Your task to perform on an android device: Add dell alienware to the cart on amazon.com, then select checkout. Image 0: 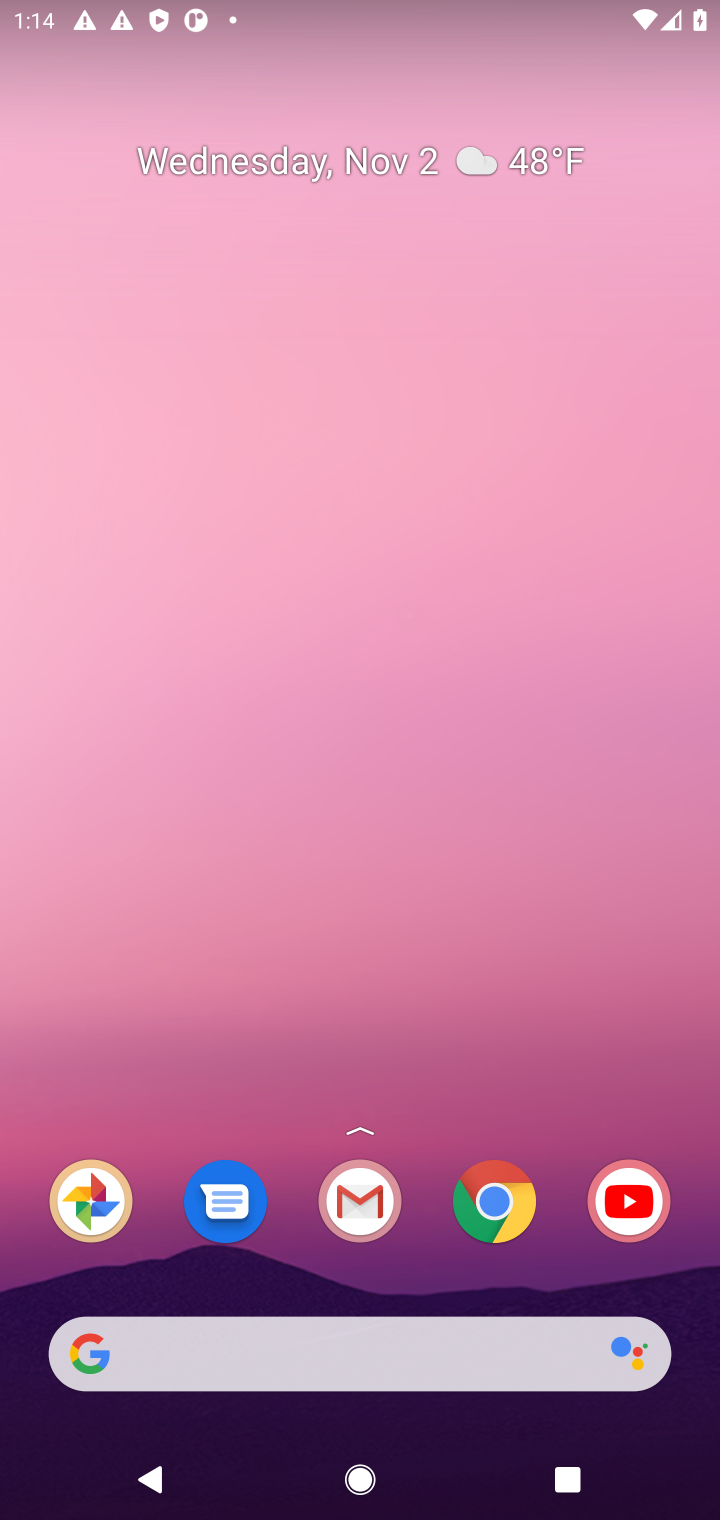
Step 0: click (503, 1211)
Your task to perform on an android device: Add dell alienware to the cart on amazon.com, then select checkout. Image 1: 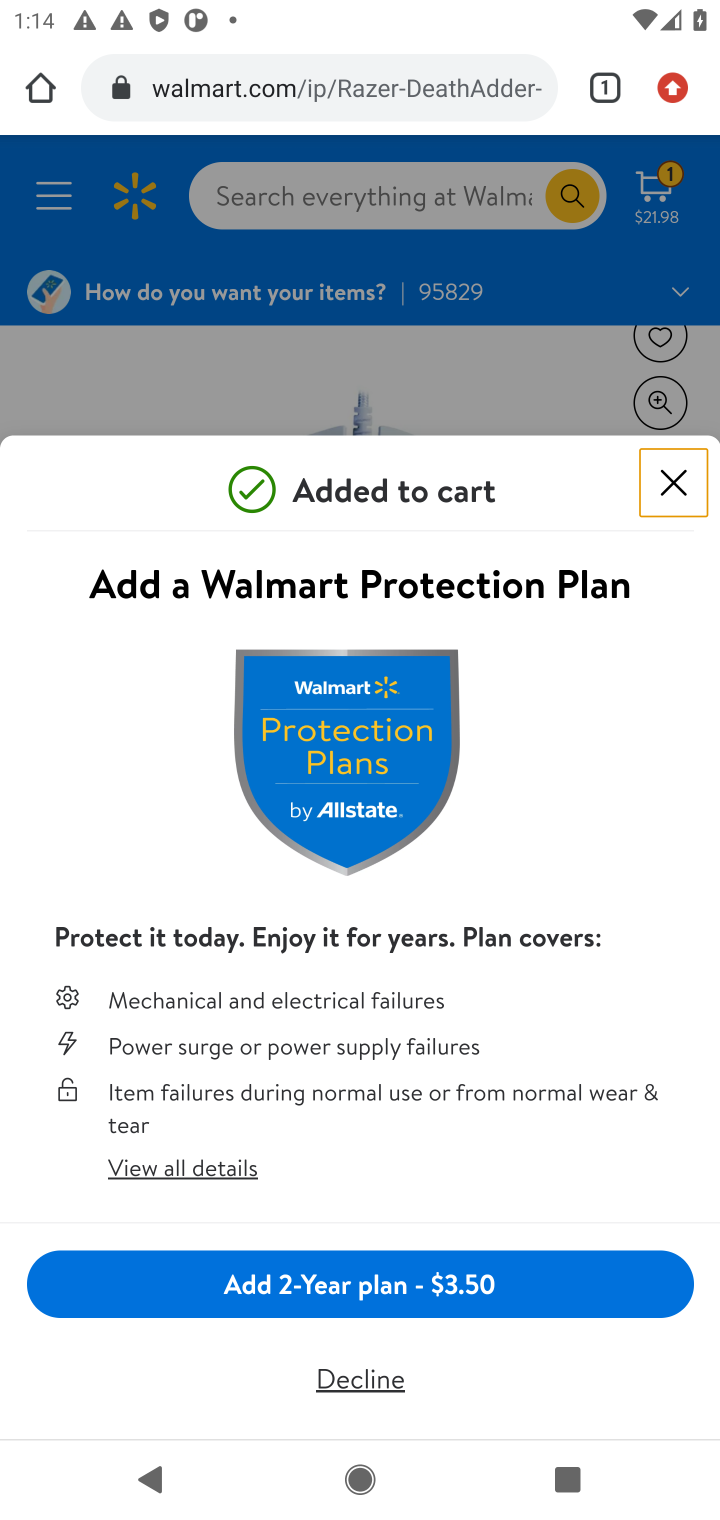
Step 1: click (363, 83)
Your task to perform on an android device: Add dell alienware to the cart on amazon.com, then select checkout. Image 2: 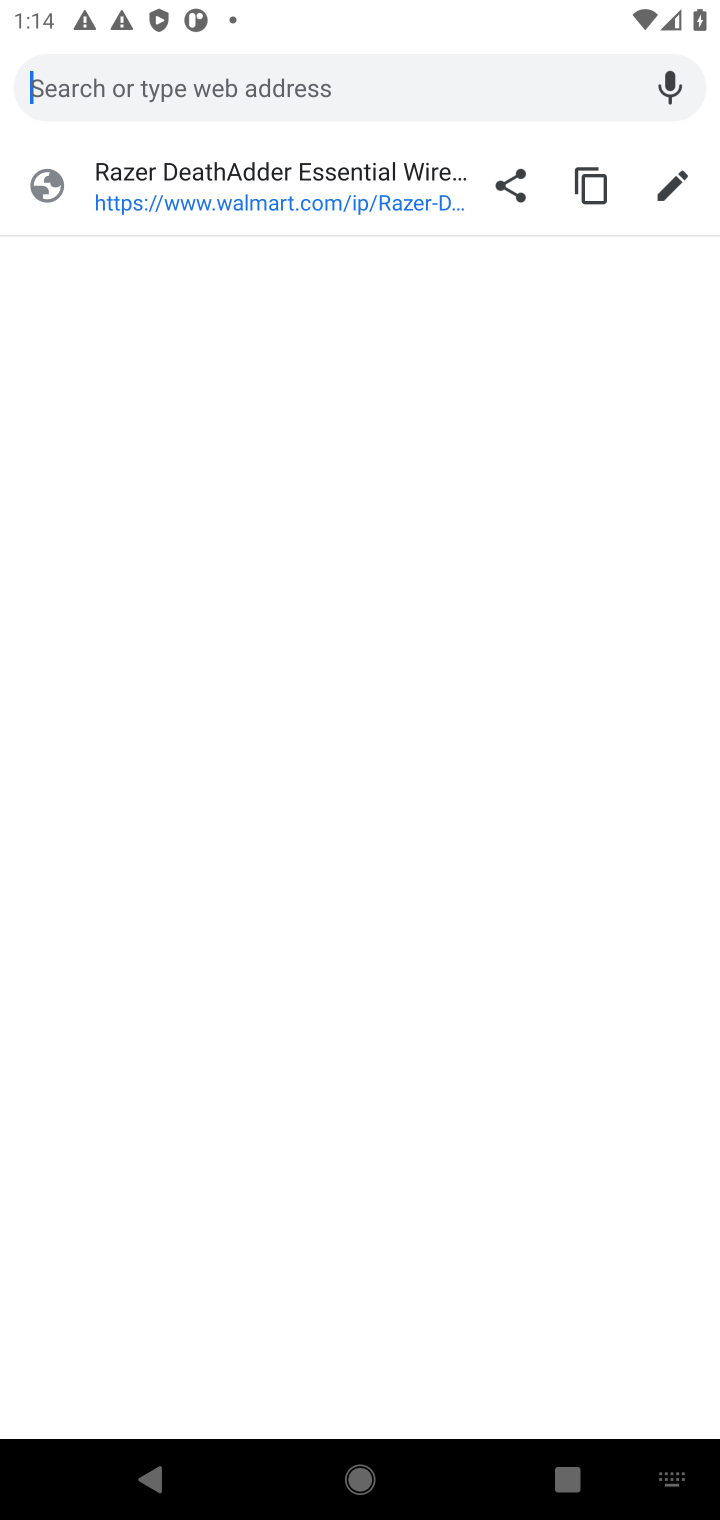
Step 2: press enter
Your task to perform on an android device: Add dell alienware to the cart on amazon.com, then select checkout. Image 3: 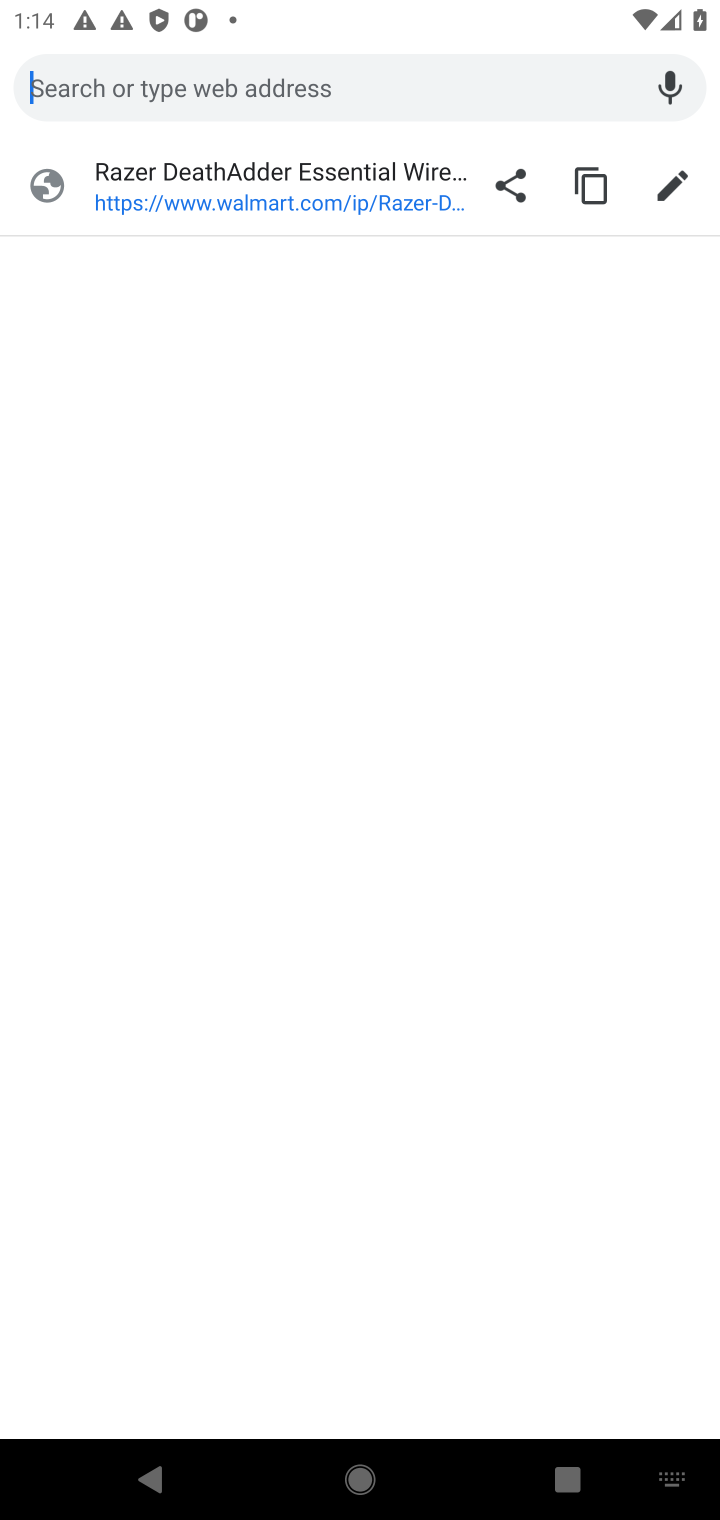
Step 3: type "amazon.com"
Your task to perform on an android device: Add dell alienware to the cart on amazon.com, then select checkout. Image 4: 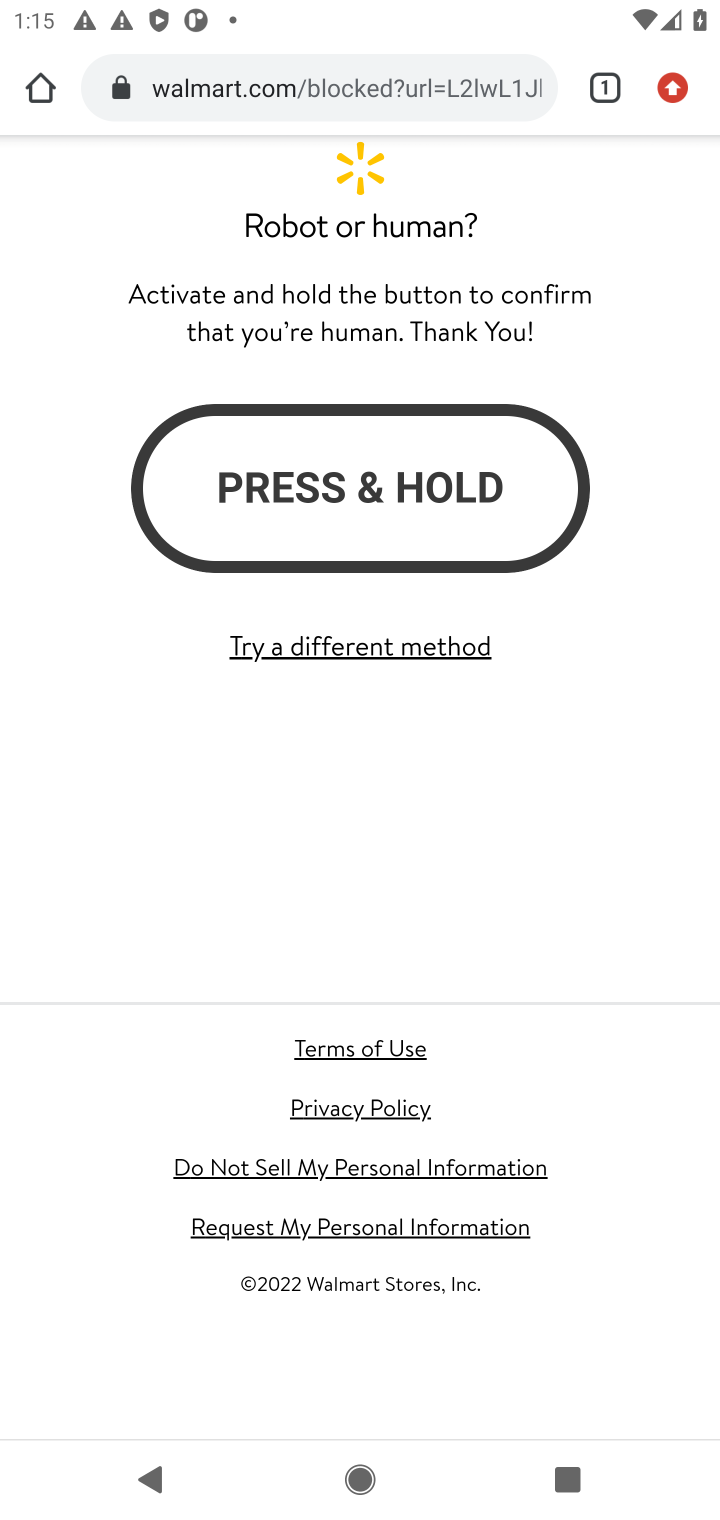
Step 4: click (231, 80)
Your task to perform on an android device: Add dell alienware to the cart on amazon.com, then select checkout. Image 5: 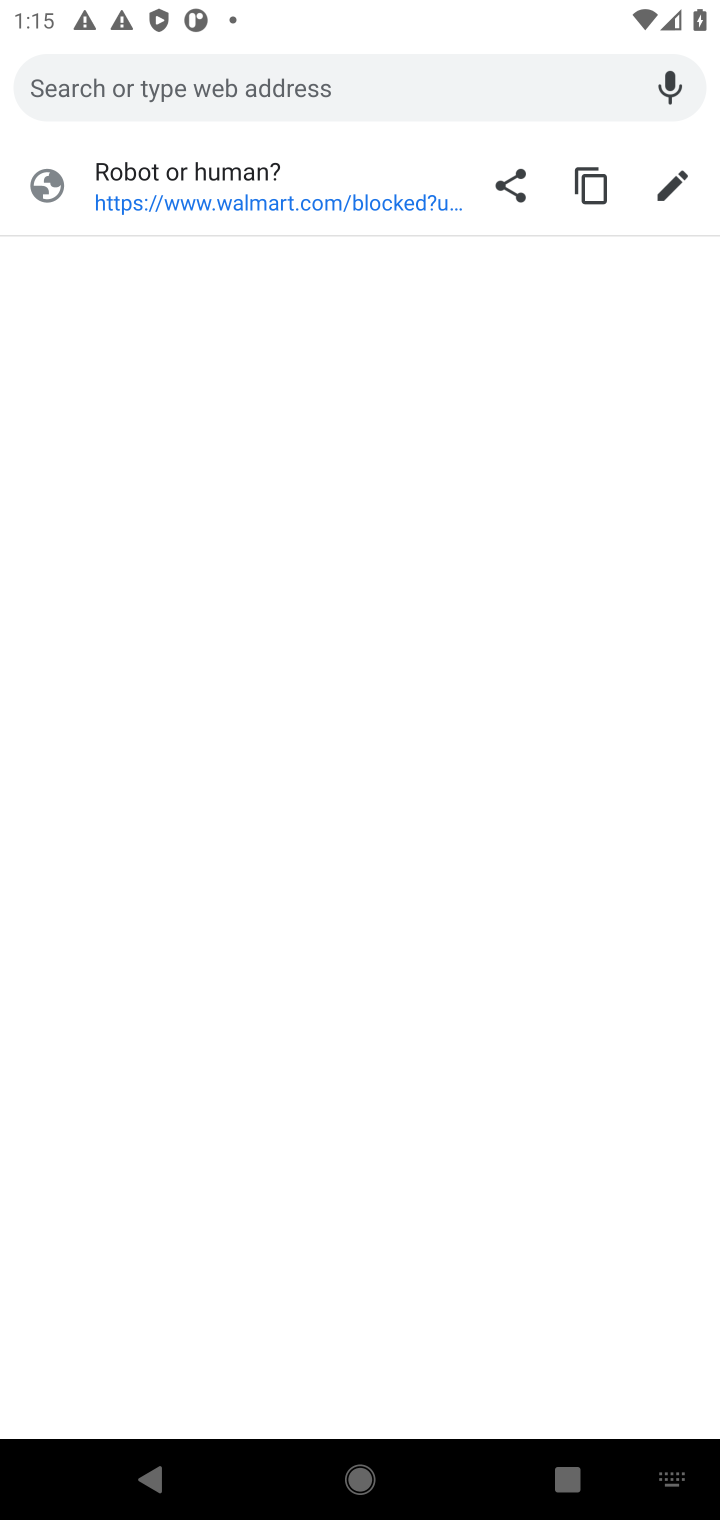
Step 5: press enter
Your task to perform on an android device: Add dell alienware to the cart on amazon.com, then select checkout. Image 6: 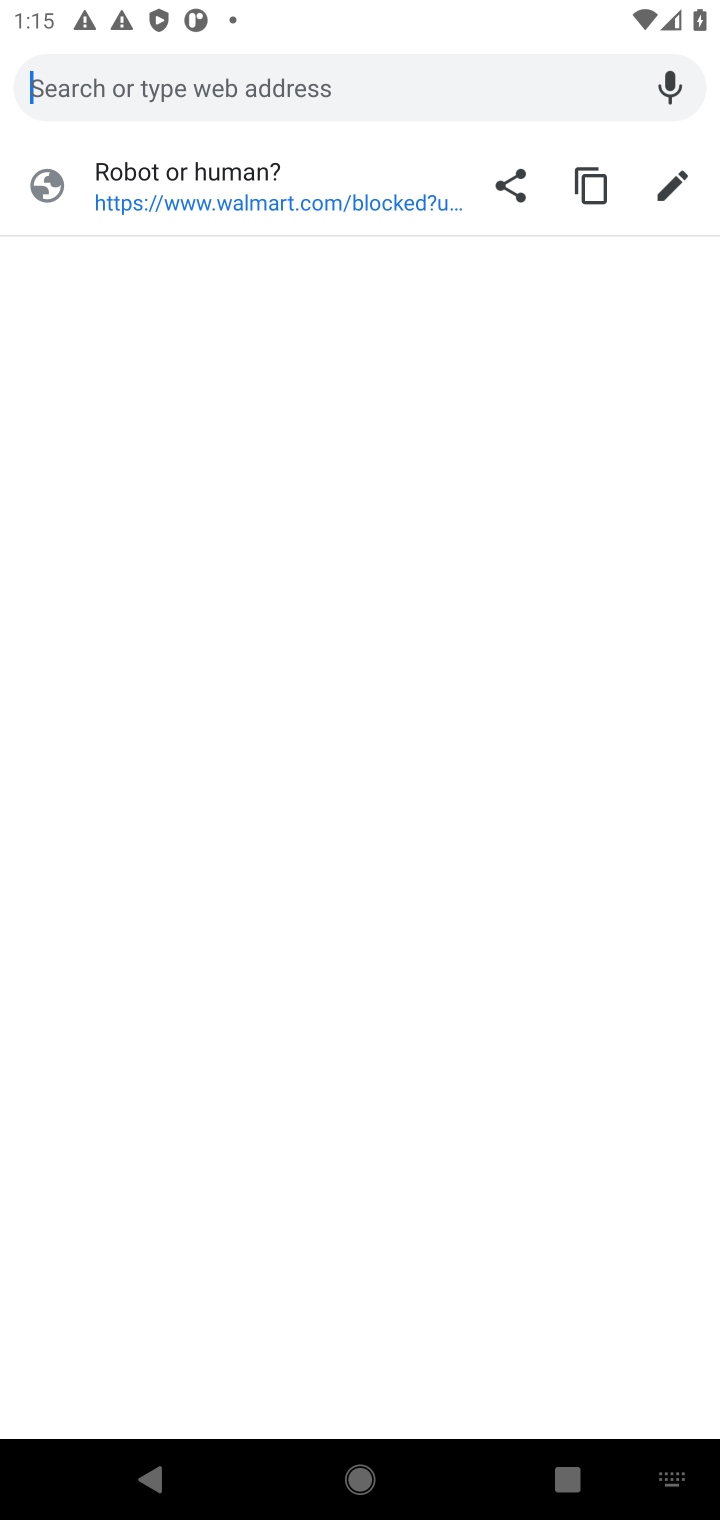
Step 6: type "amazon.com"
Your task to perform on an android device: Add dell alienware to the cart on amazon.com, then select checkout. Image 7: 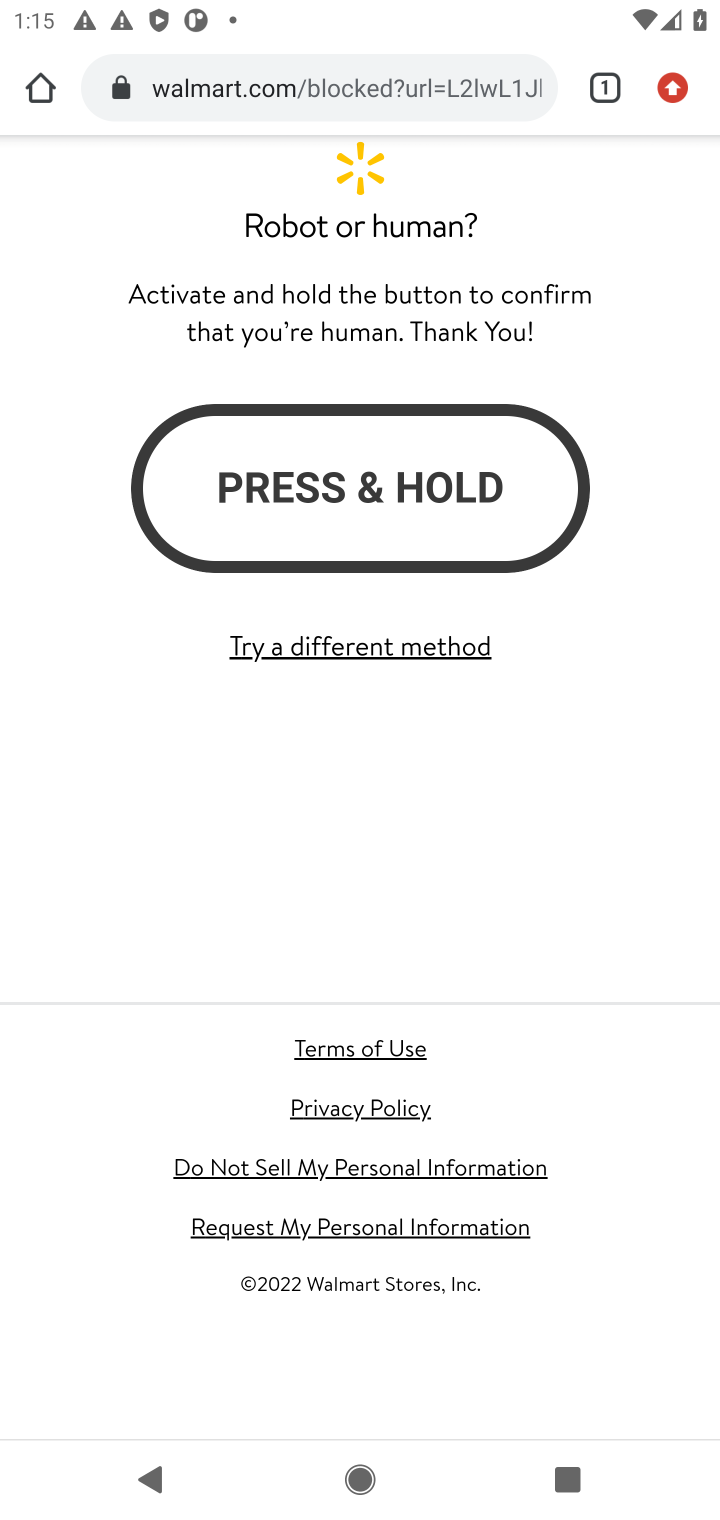
Step 7: click (338, 87)
Your task to perform on an android device: Add dell alienware to the cart on amazon.com, then select checkout. Image 8: 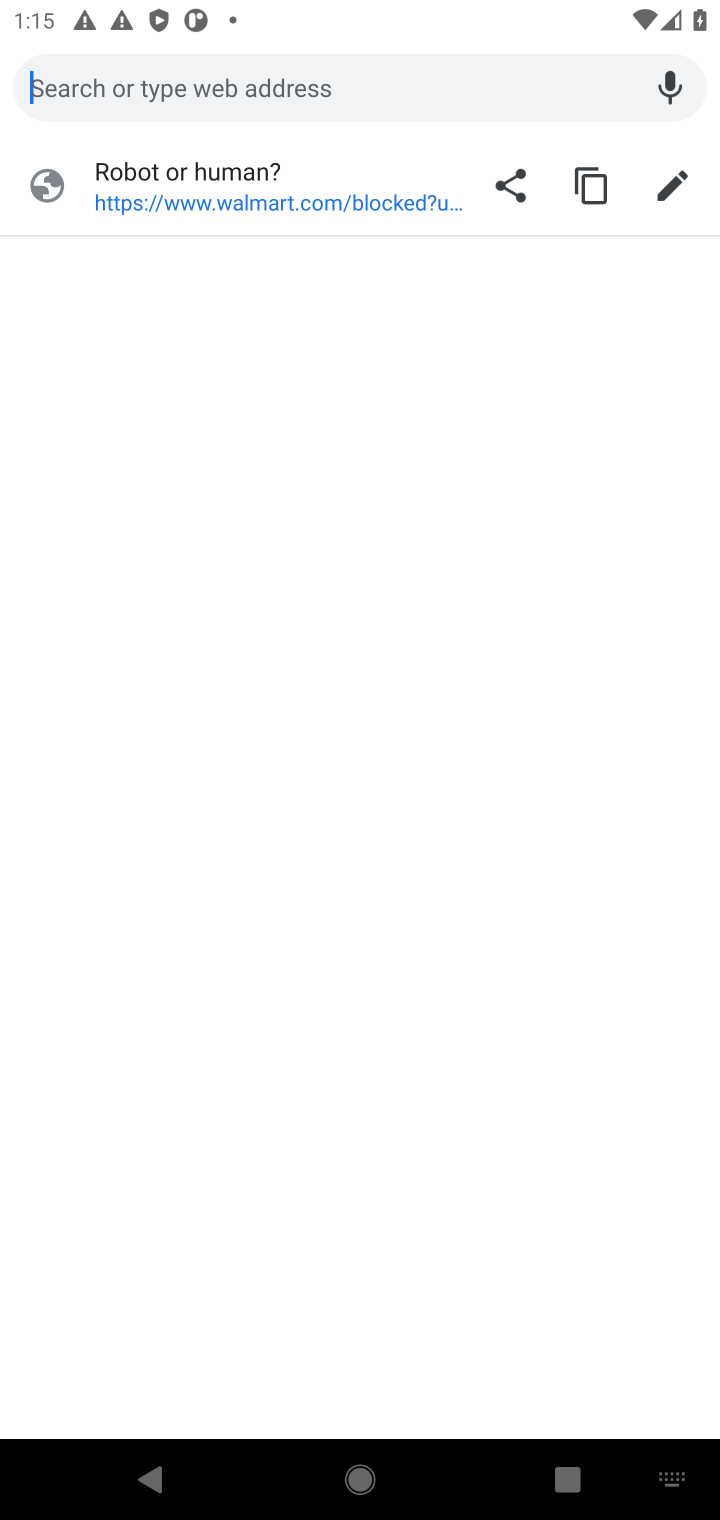
Step 8: press enter
Your task to perform on an android device: Add dell alienware to the cart on amazon.com, then select checkout. Image 9: 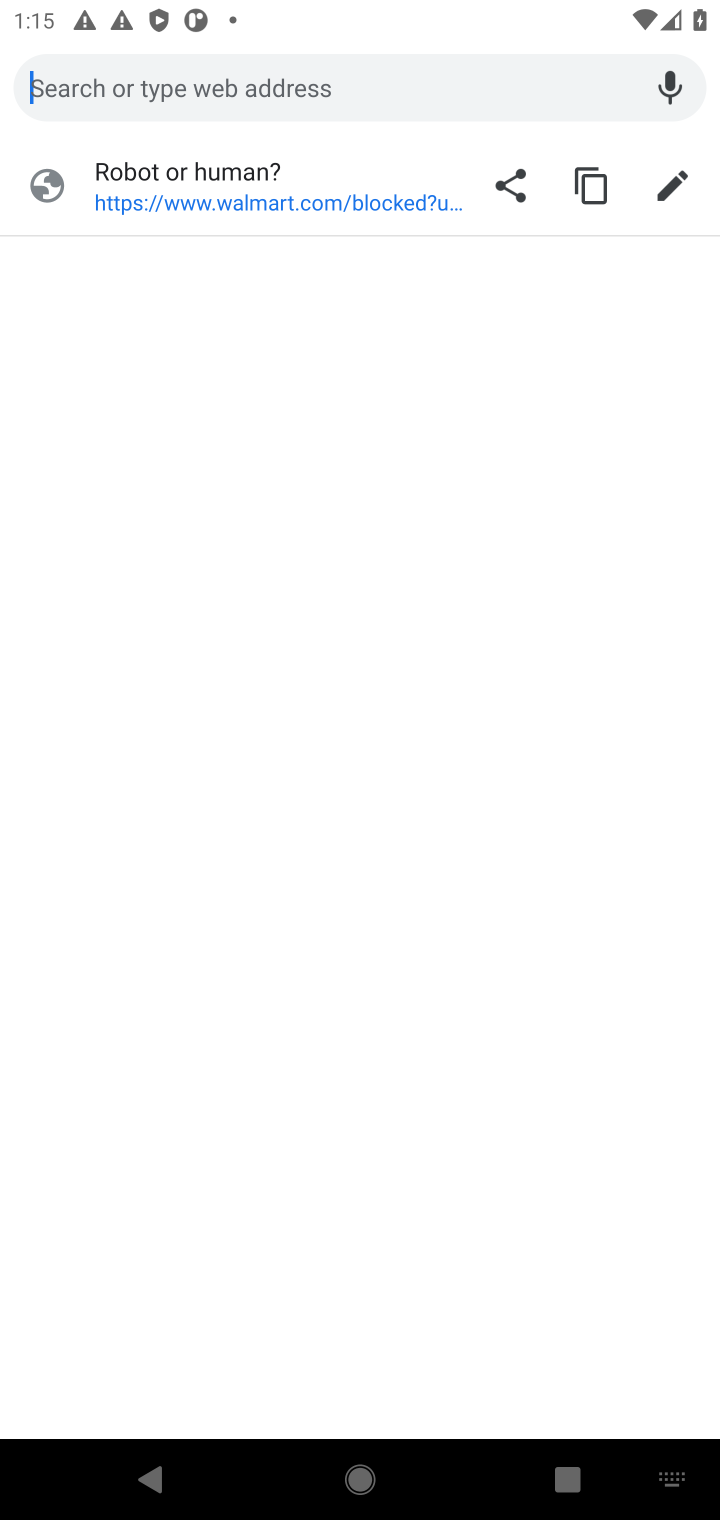
Step 9: type "amazon.com"
Your task to perform on an android device: Add dell alienware to the cart on amazon.com, then select checkout. Image 10: 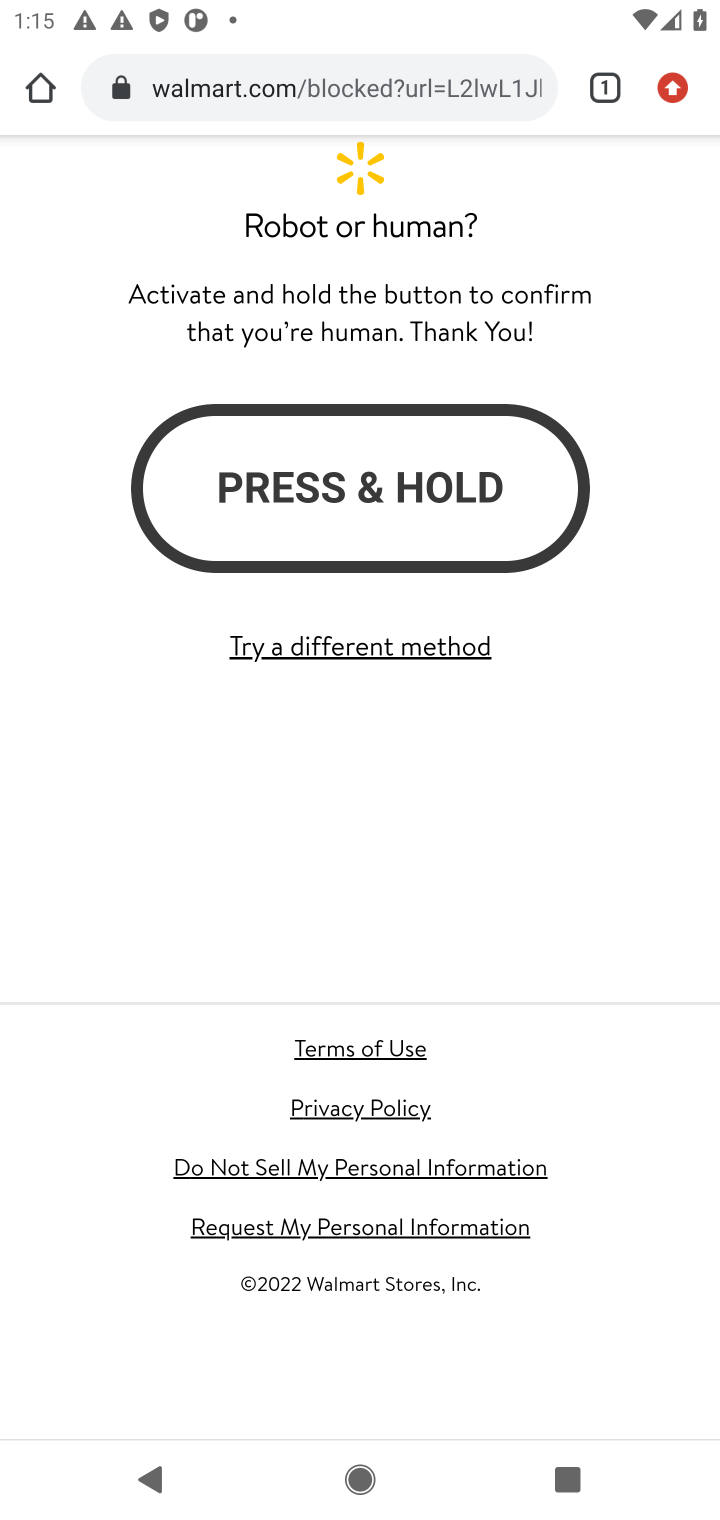
Step 10: click (30, 80)
Your task to perform on an android device: Add dell alienware to the cart on amazon.com, then select checkout. Image 11: 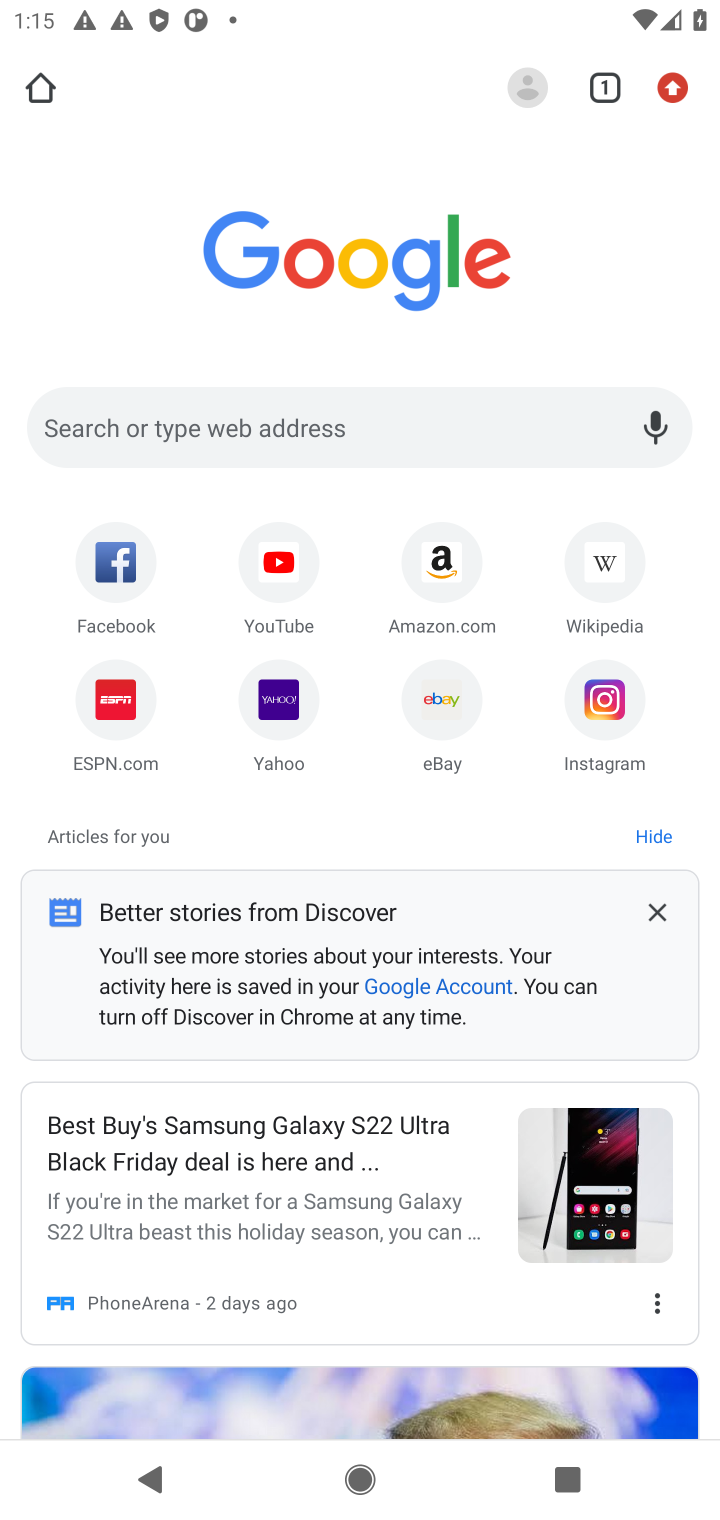
Step 11: click (289, 440)
Your task to perform on an android device: Add dell alienware to the cart on amazon.com, then select checkout. Image 12: 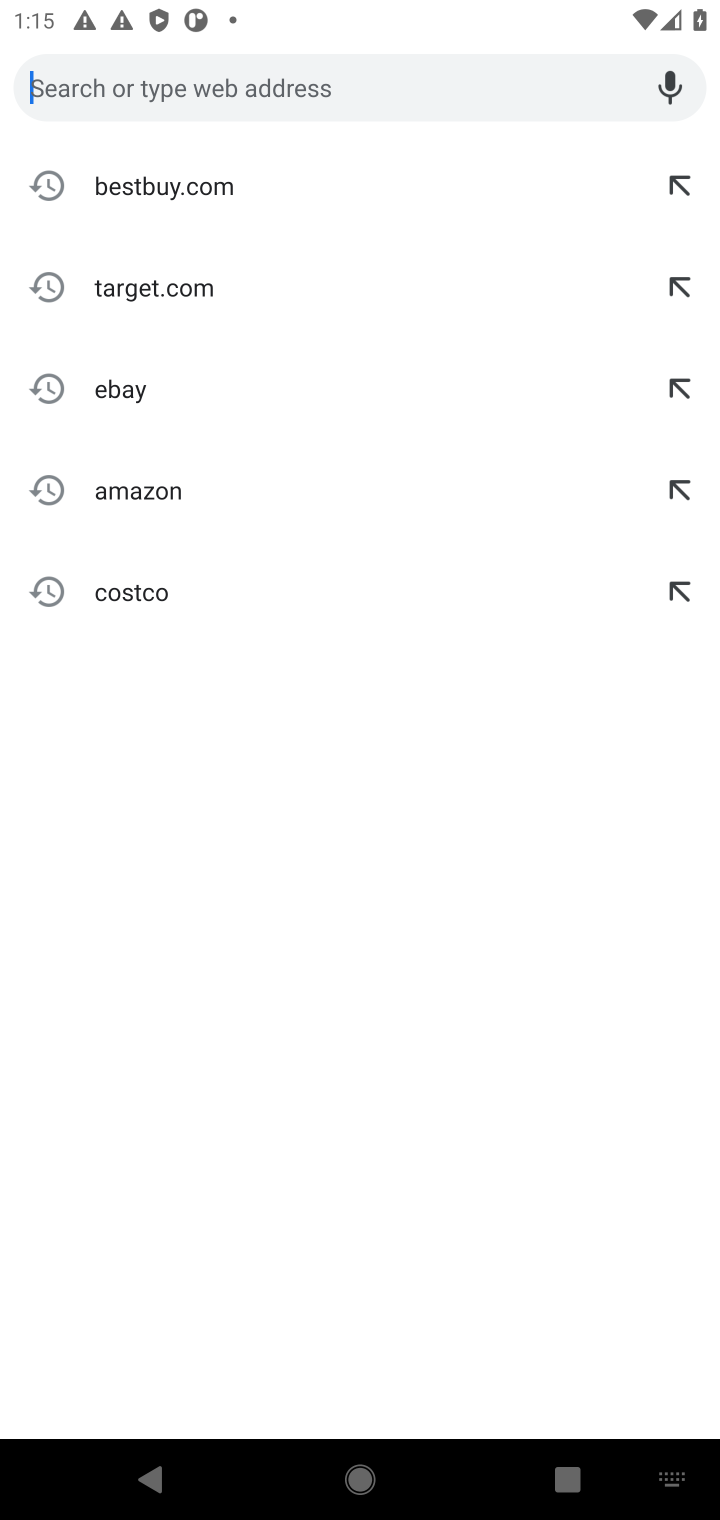
Step 12: press enter
Your task to perform on an android device: Add dell alienware to the cart on amazon.com, then select checkout. Image 13: 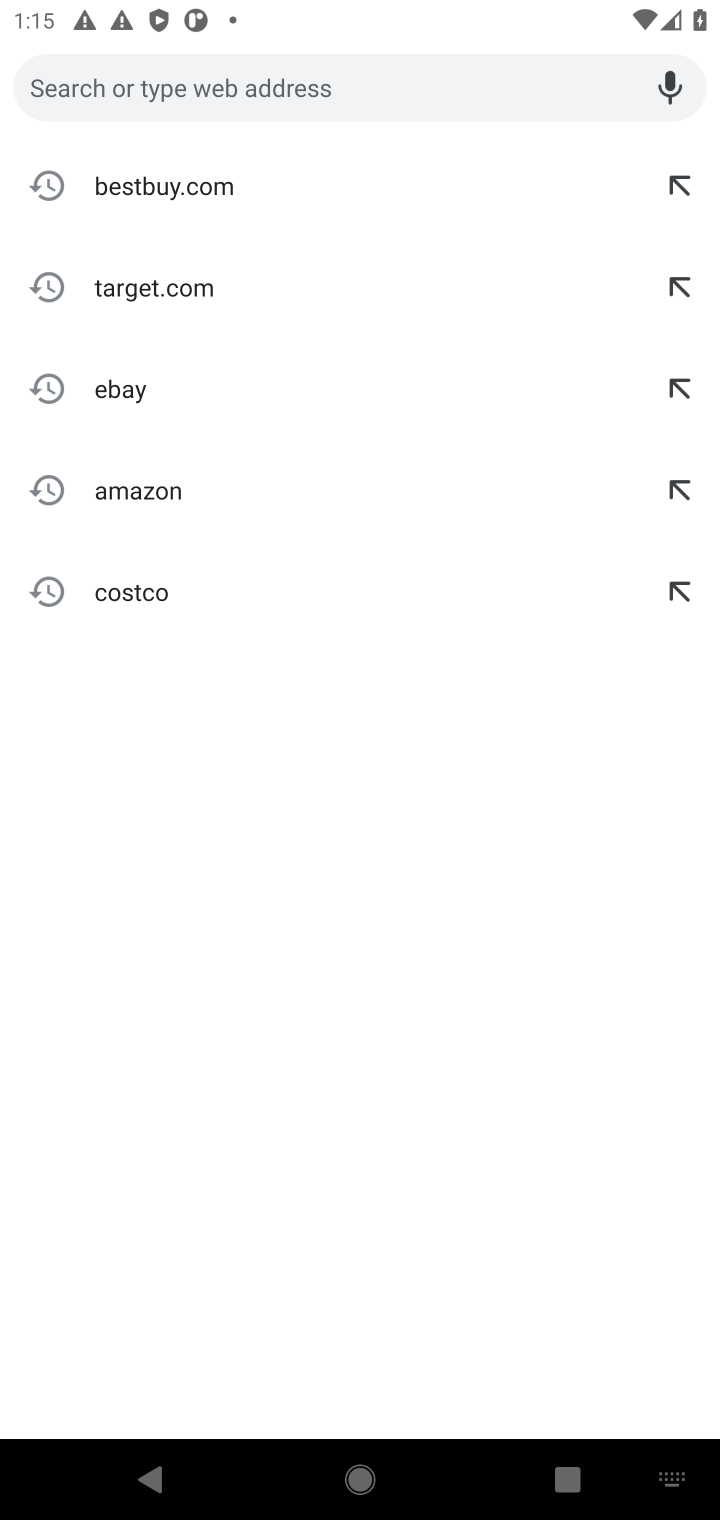
Step 13: type "amazon.com"
Your task to perform on an android device: Add dell alienware to the cart on amazon.com, then select checkout. Image 14: 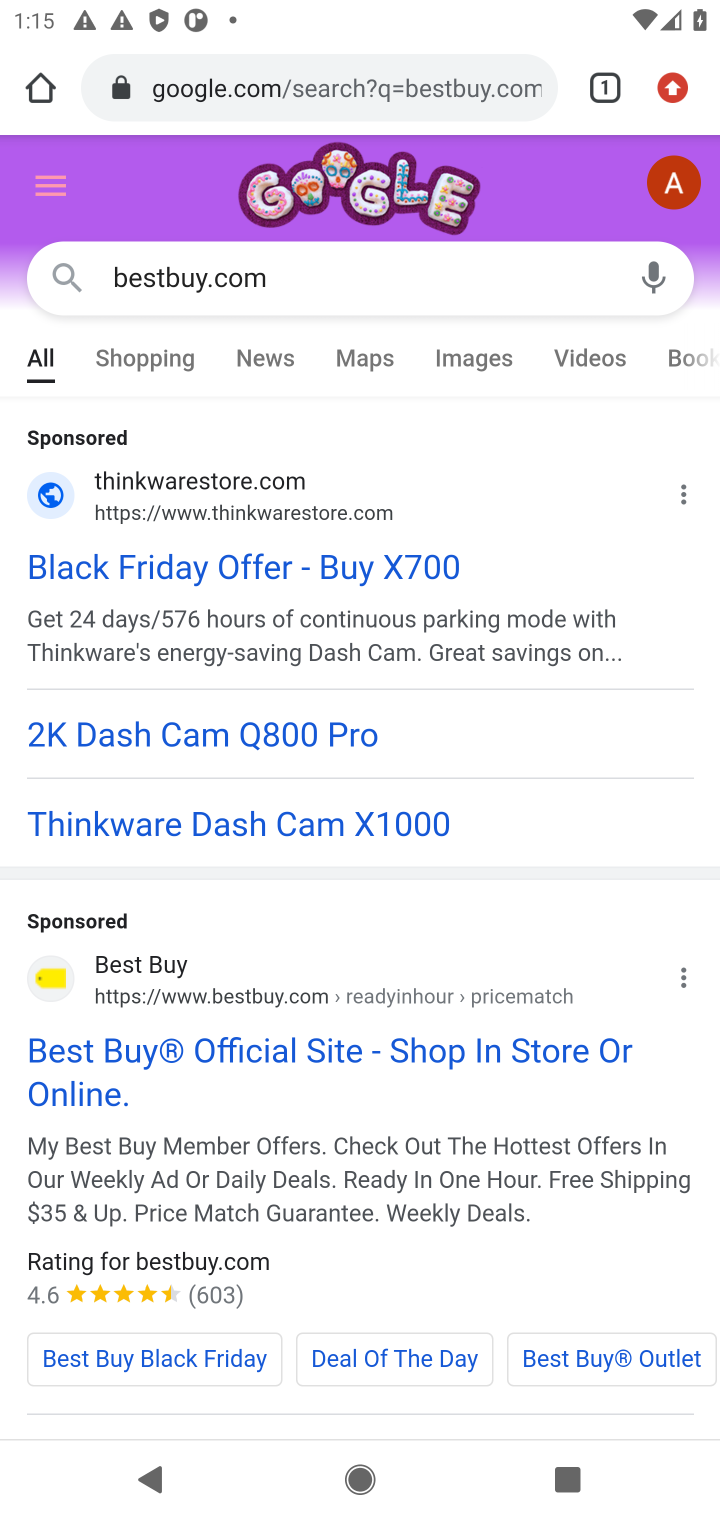
Step 14: click (249, 90)
Your task to perform on an android device: Add dell alienware to the cart on amazon.com, then select checkout. Image 15: 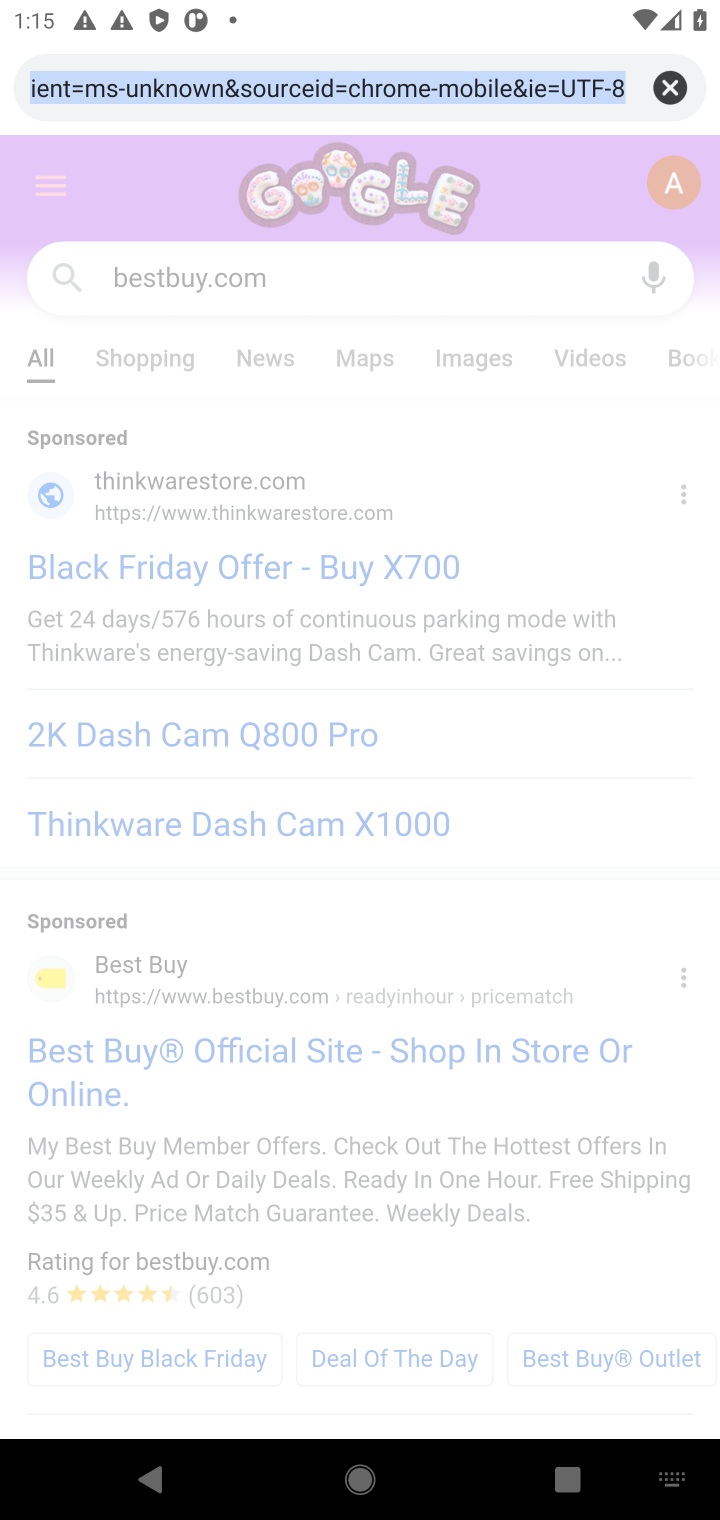
Step 15: click (664, 88)
Your task to perform on an android device: Add dell alienware to the cart on amazon.com, then select checkout. Image 16: 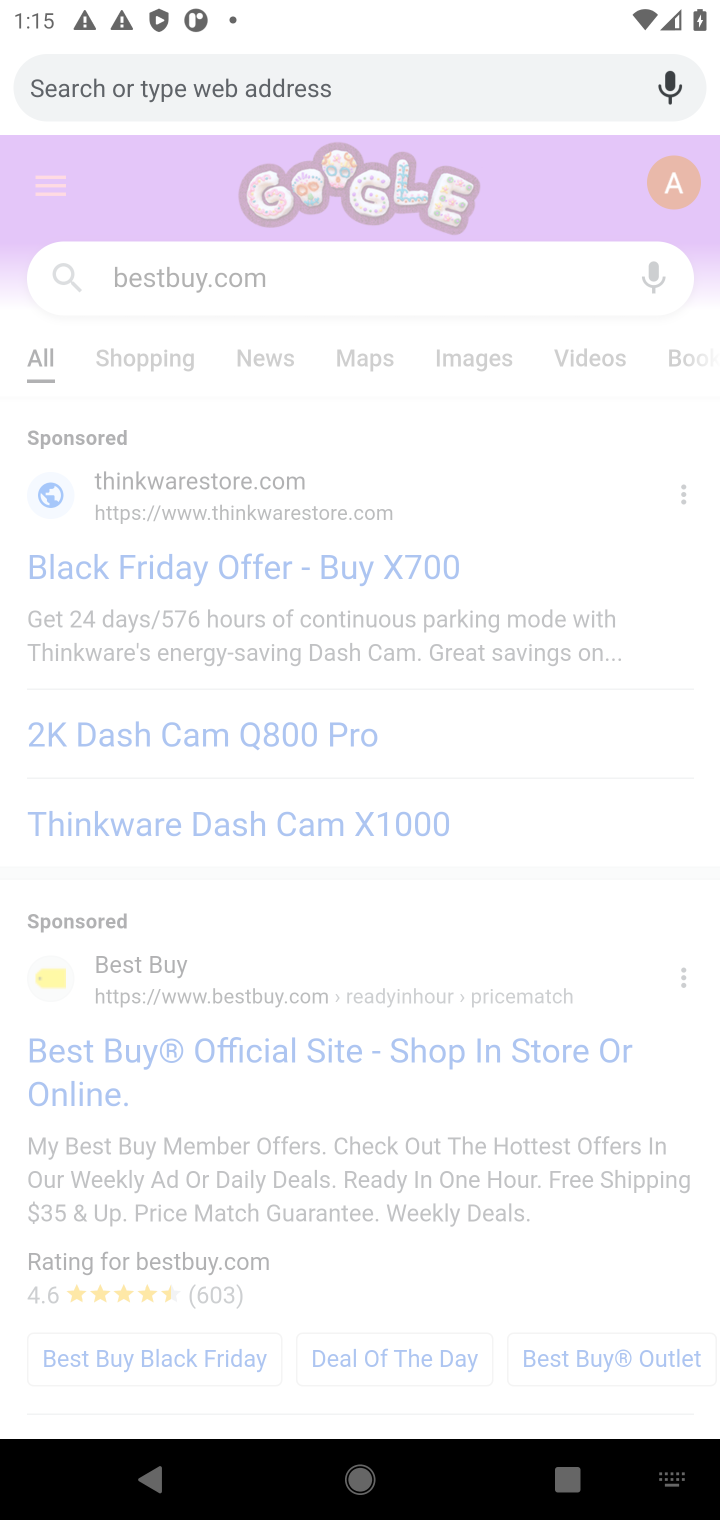
Step 16: press enter
Your task to perform on an android device: Add dell alienware to the cart on amazon.com, then select checkout. Image 17: 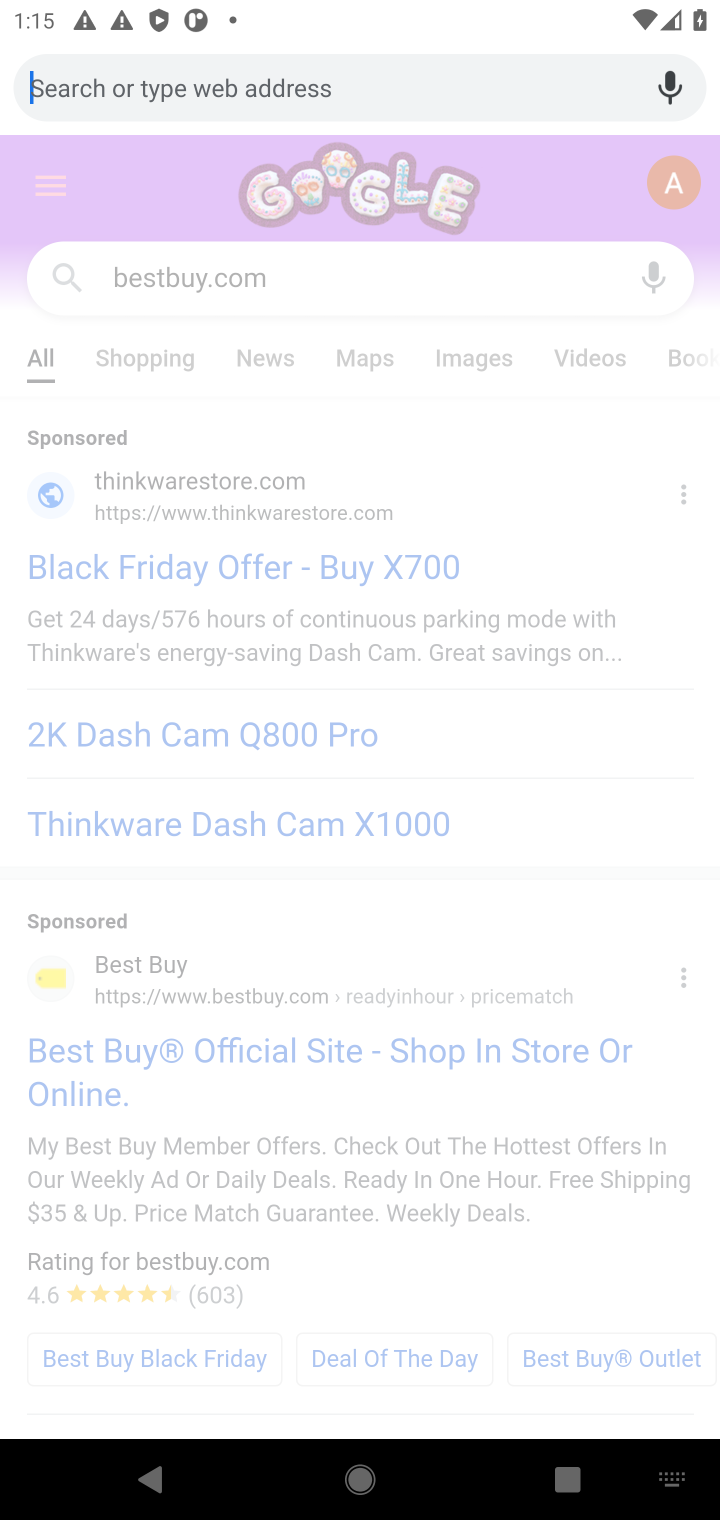
Step 17: type "amazon.com"
Your task to perform on an android device: Add dell alienware to the cart on amazon.com, then select checkout. Image 18: 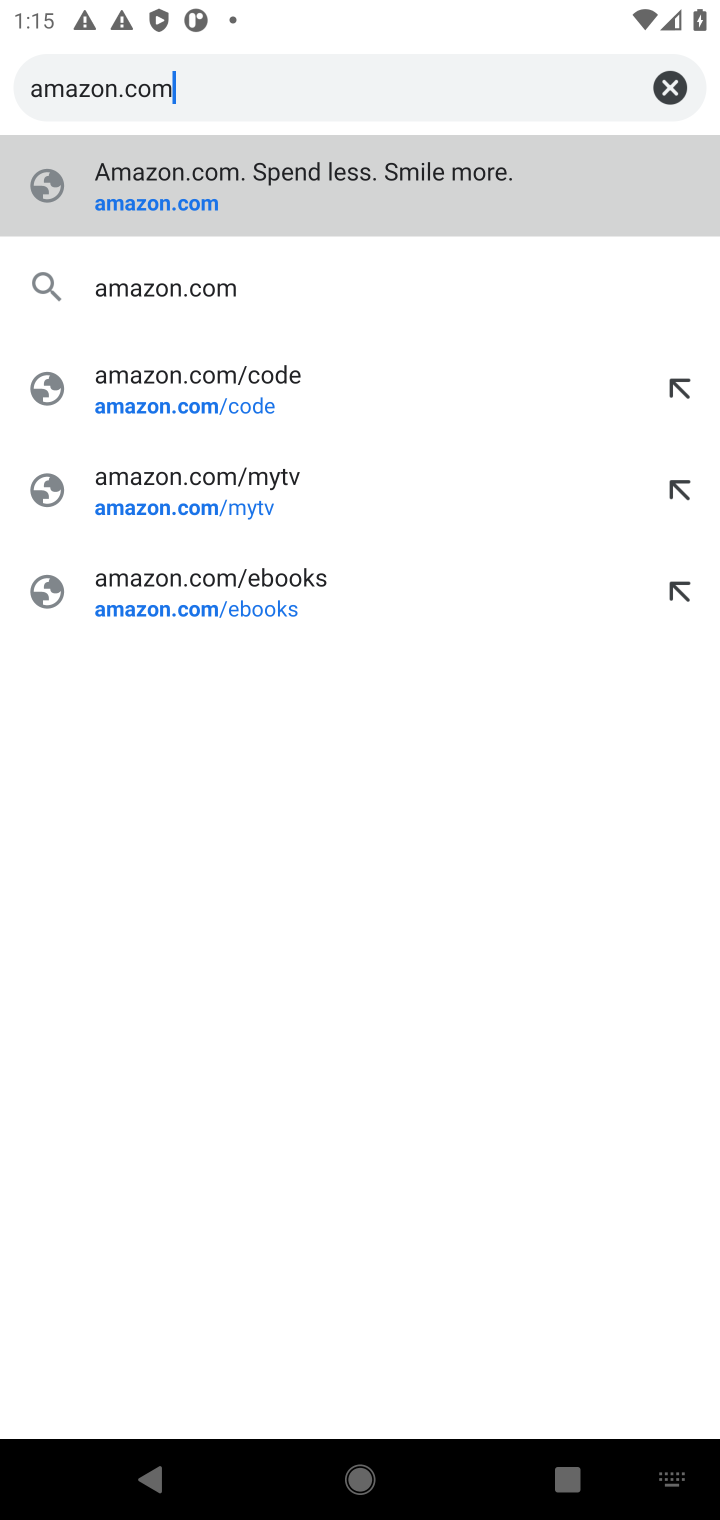
Step 18: click (270, 294)
Your task to perform on an android device: Add dell alienware to the cart on amazon.com, then select checkout. Image 19: 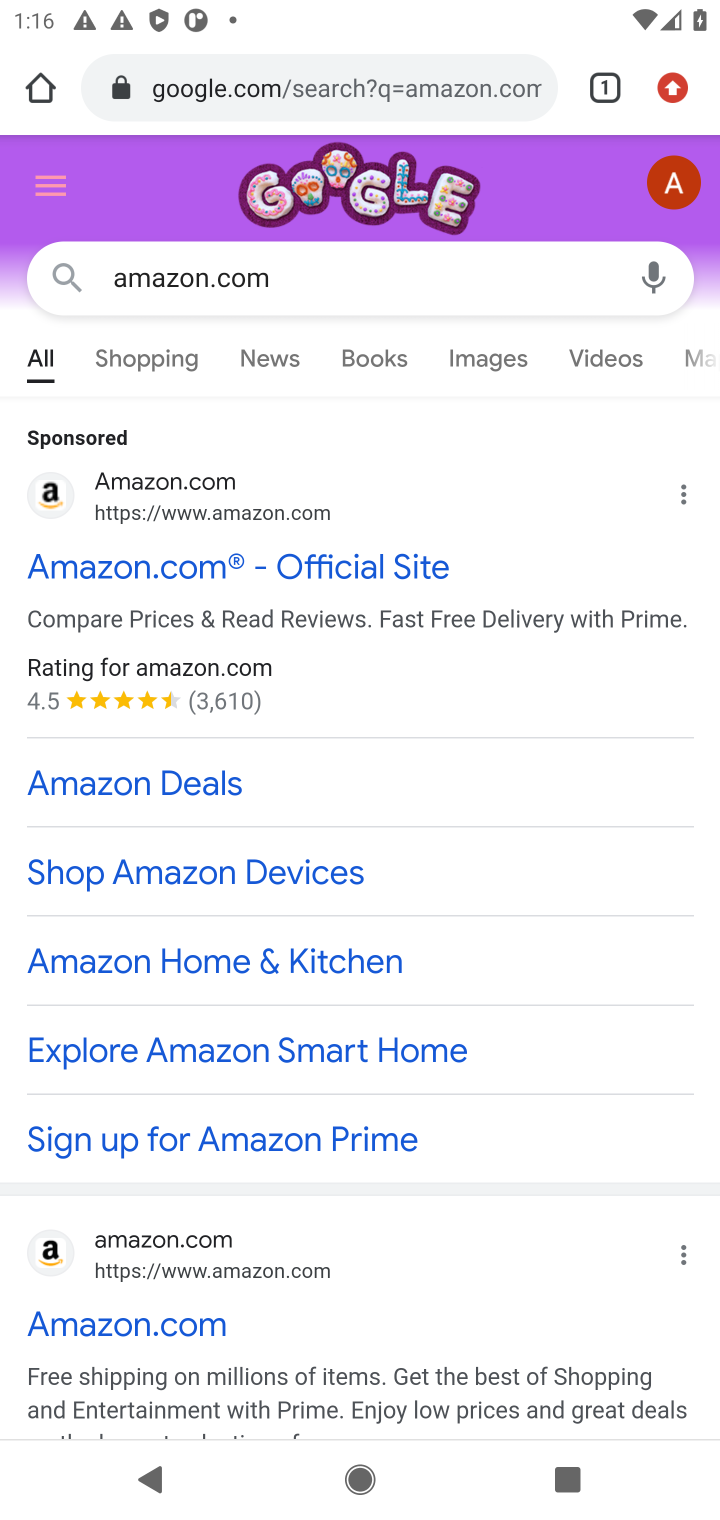
Step 19: click (211, 481)
Your task to perform on an android device: Add dell alienware to the cart on amazon.com, then select checkout. Image 20: 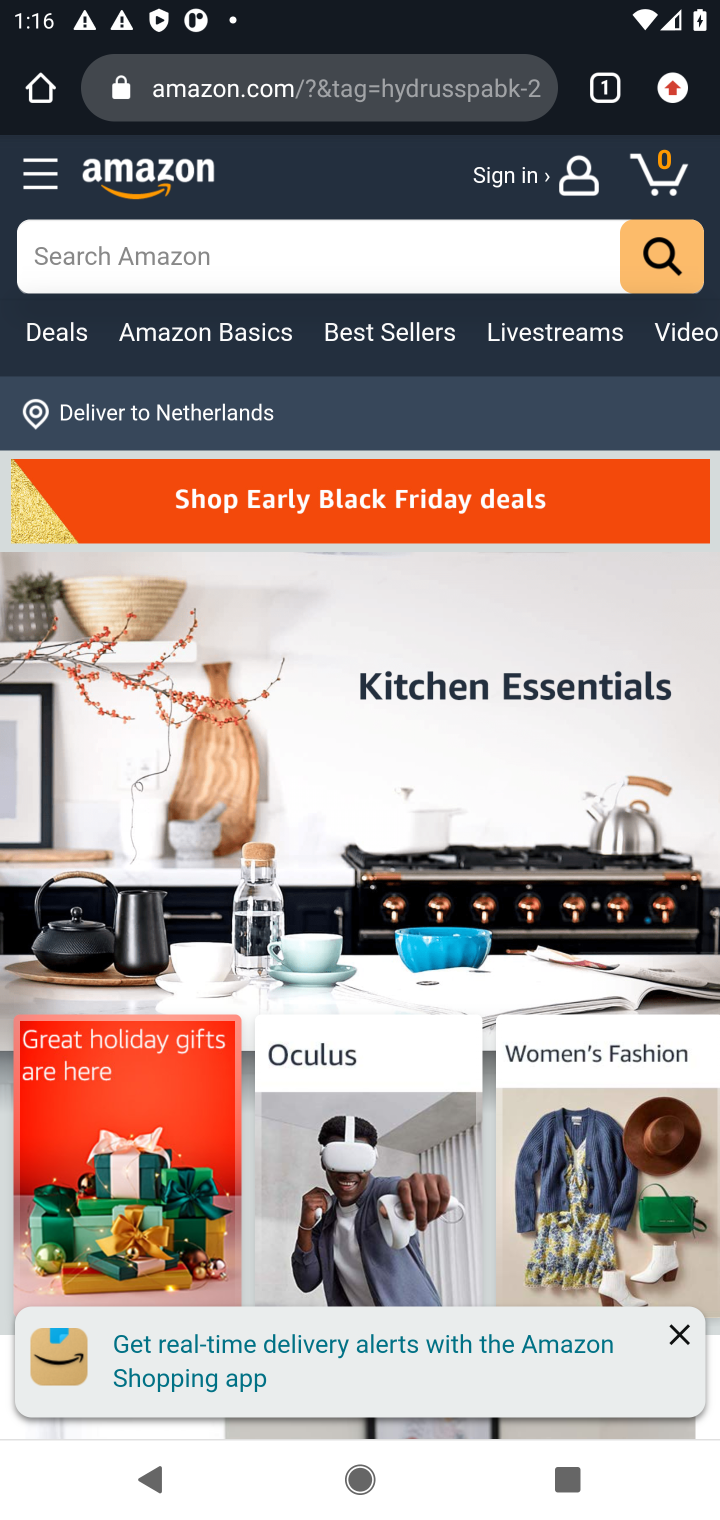
Step 20: click (197, 257)
Your task to perform on an android device: Add dell alienware to the cart on amazon.com, then select checkout. Image 21: 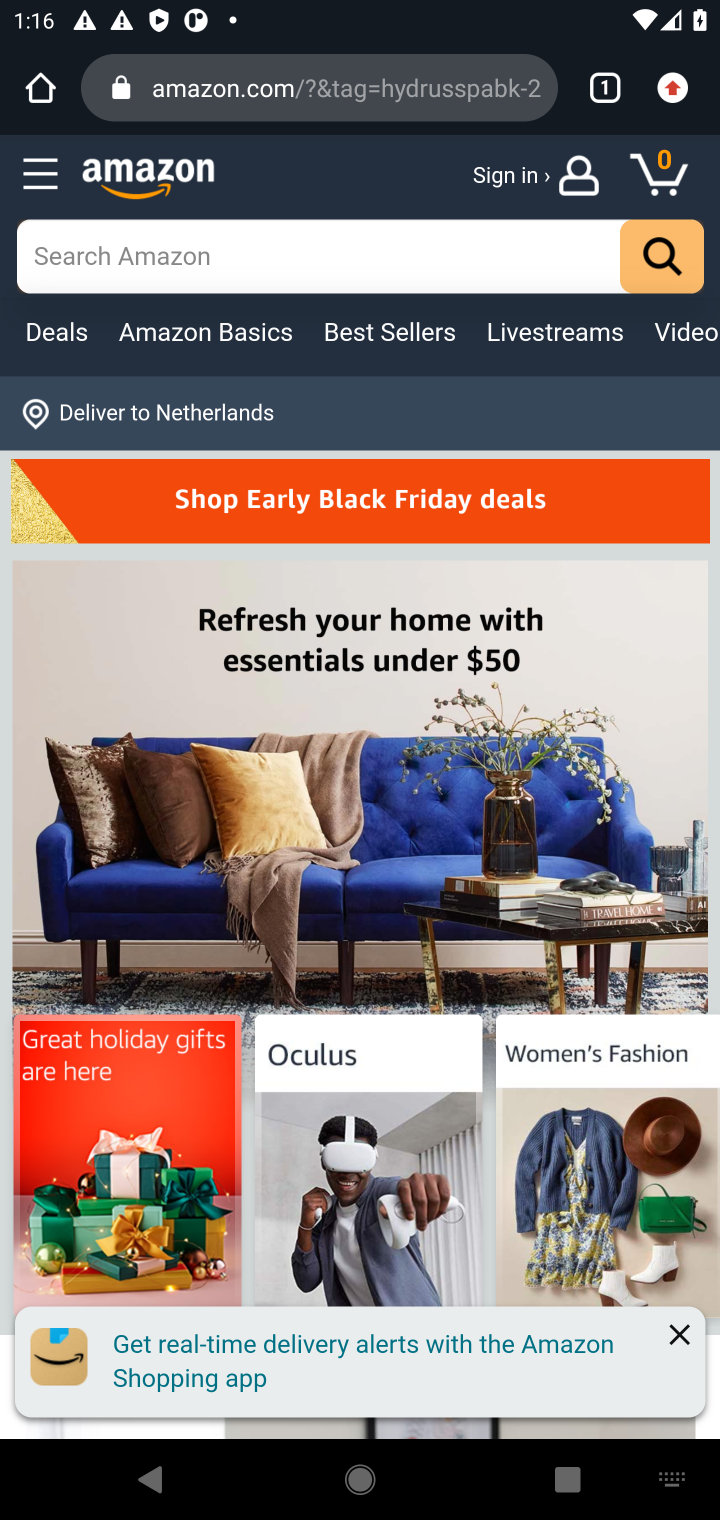
Step 21: type "dell alienware"
Your task to perform on an android device: Add dell alienware to the cart on amazon.com, then select checkout. Image 22: 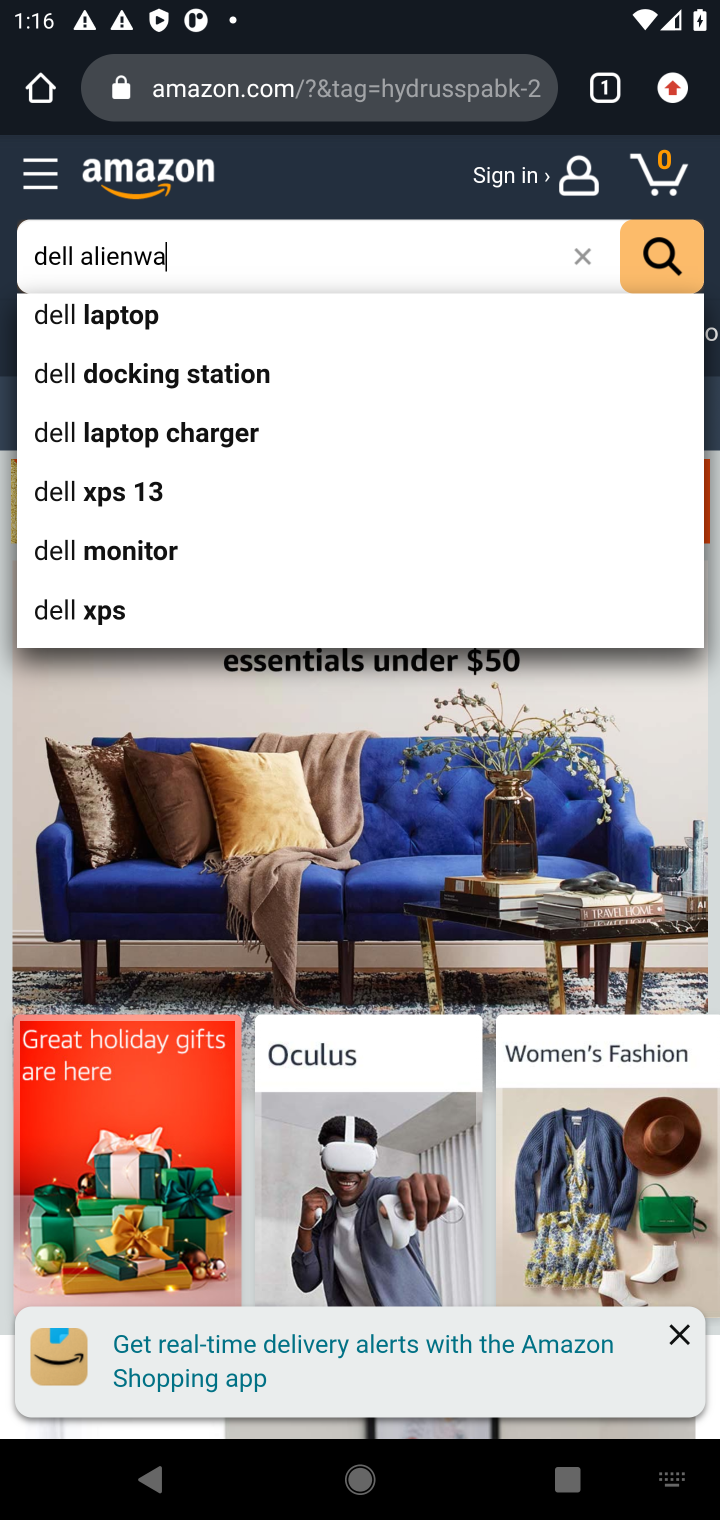
Step 22: press enter
Your task to perform on an android device: Add dell alienware to the cart on amazon.com, then select checkout. Image 23: 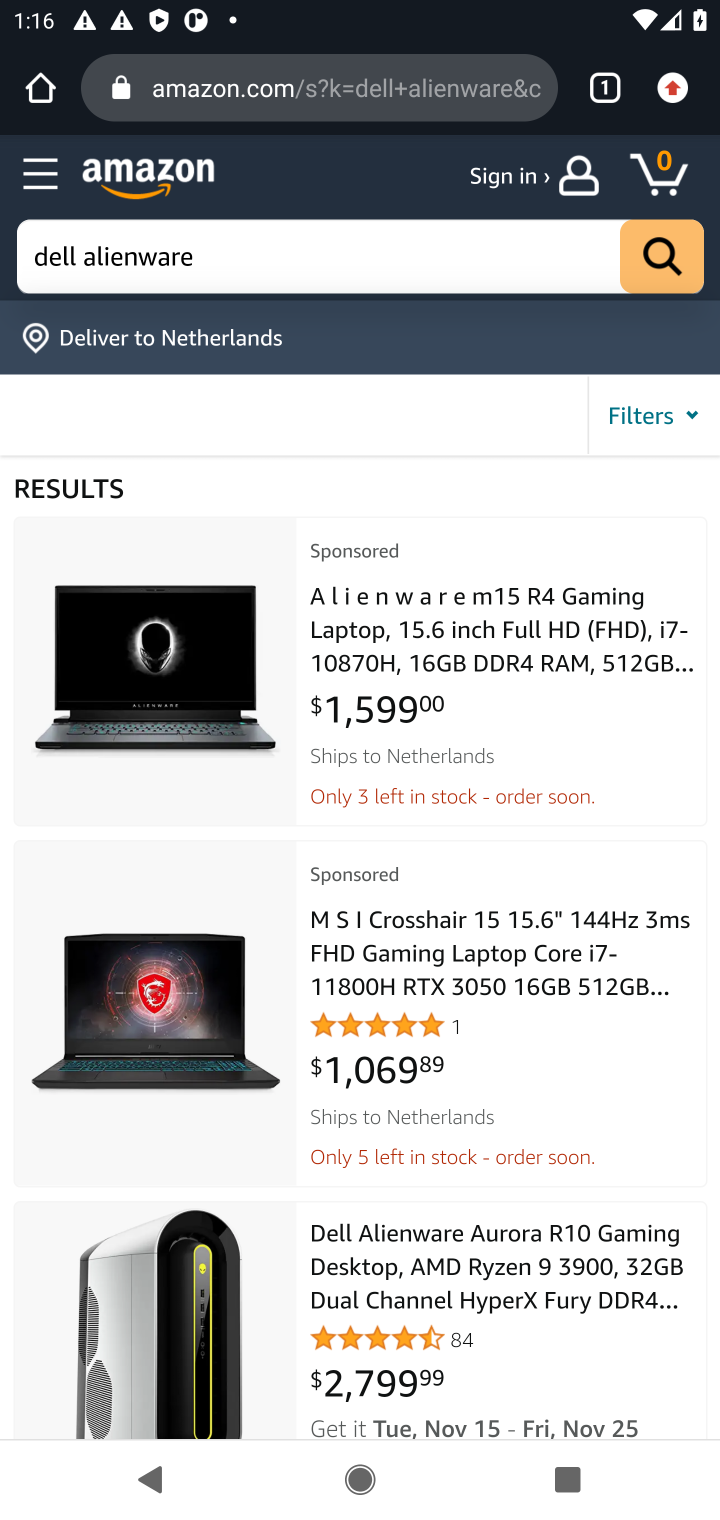
Step 23: click (147, 1302)
Your task to perform on an android device: Add dell alienware to the cart on amazon.com, then select checkout. Image 24: 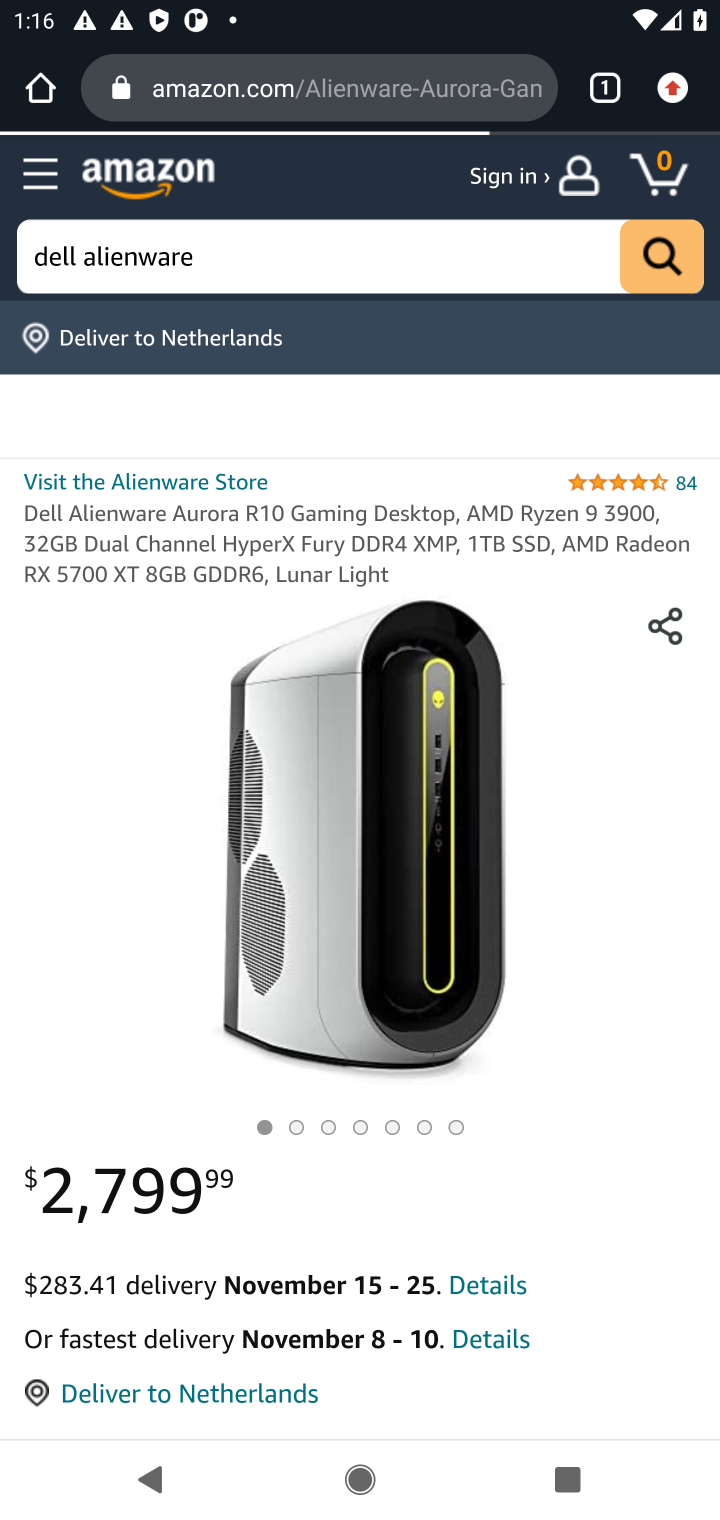
Step 24: drag from (469, 936) to (441, 718)
Your task to perform on an android device: Add dell alienware to the cart on amazon.com, then select checkout. Image 25: 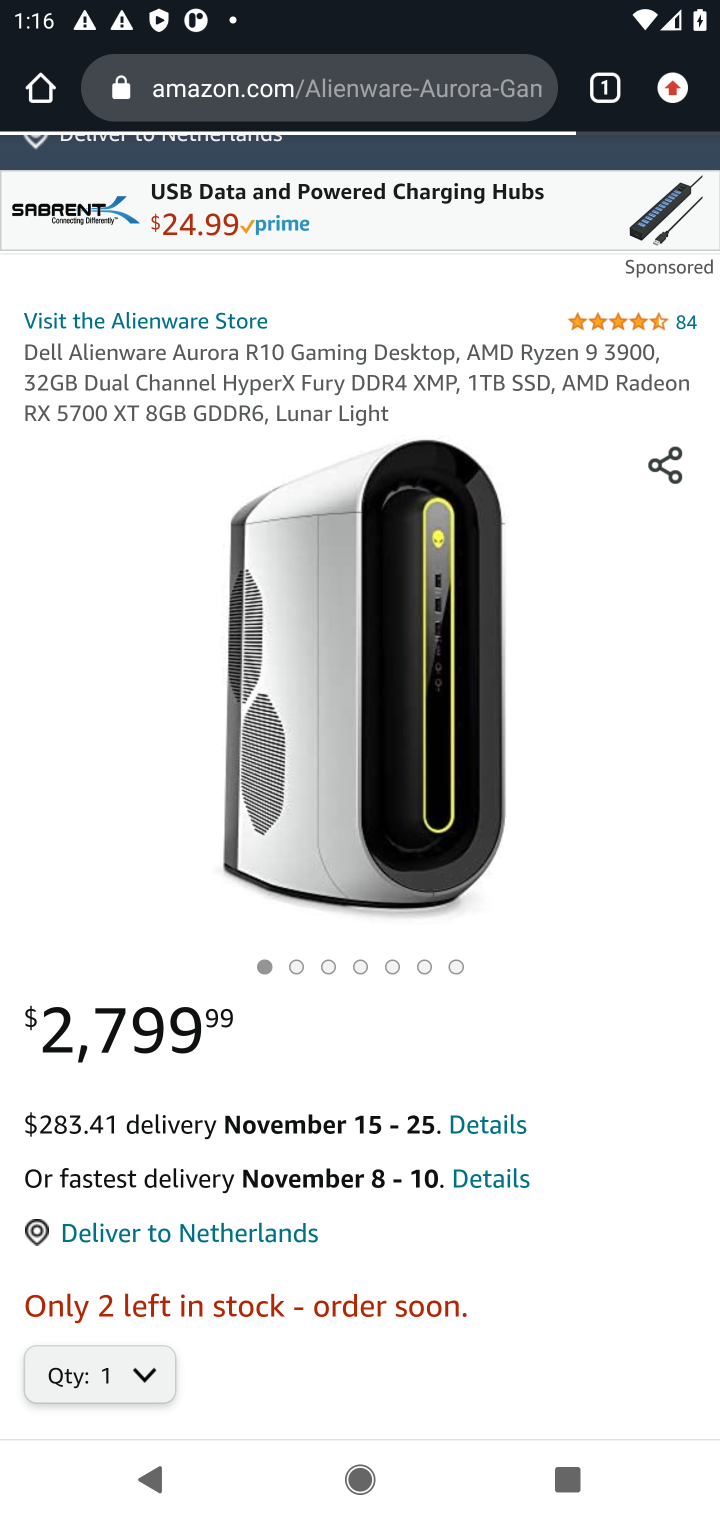
Step 25: click (449, 942)
Your task to perform on an android device: Add dell alienware to the cart on amazon.com, then select checkout. Image 26: 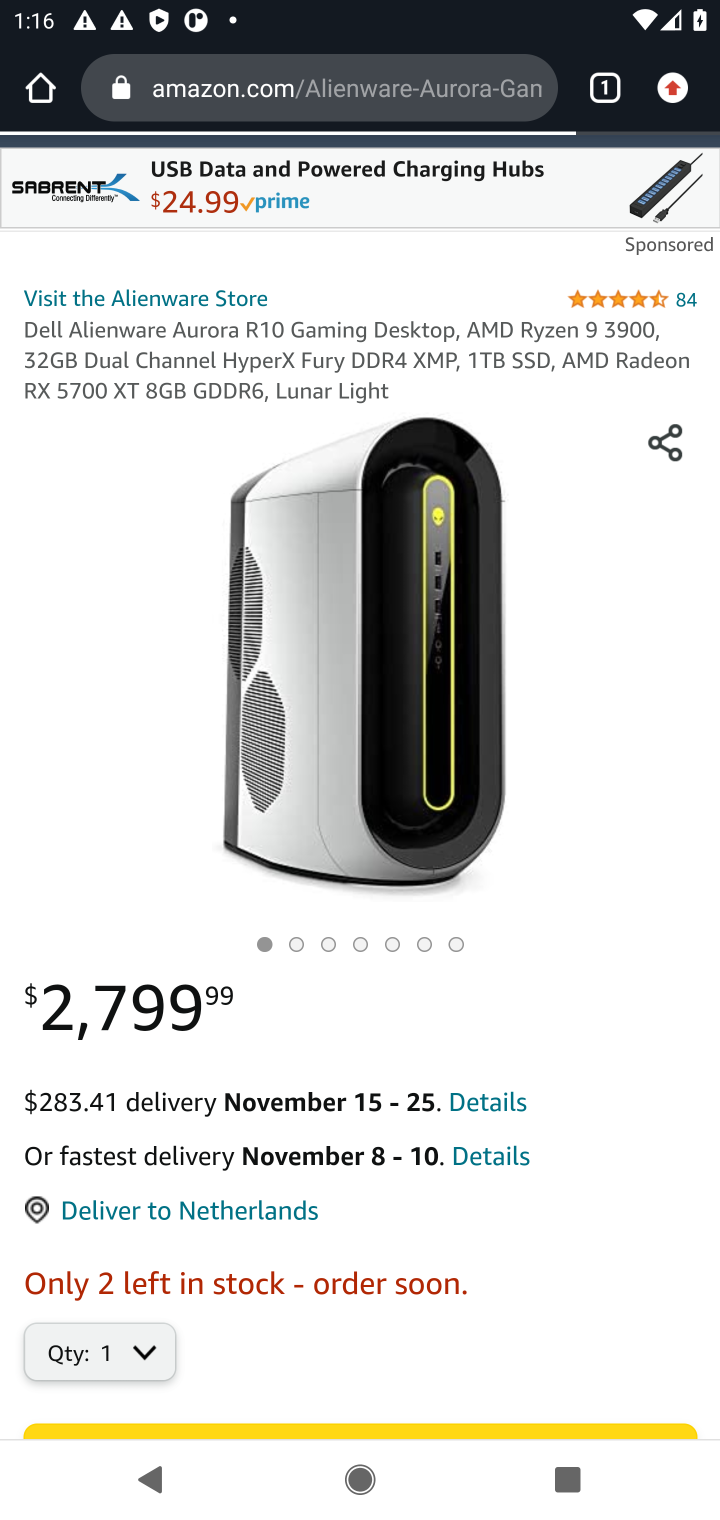
Step 26: drag from (472, 1153) to (450, 970)
Your task to perform on an android device: Add dell alienware to the cart on amazon.com, then select checkout. Image 27: 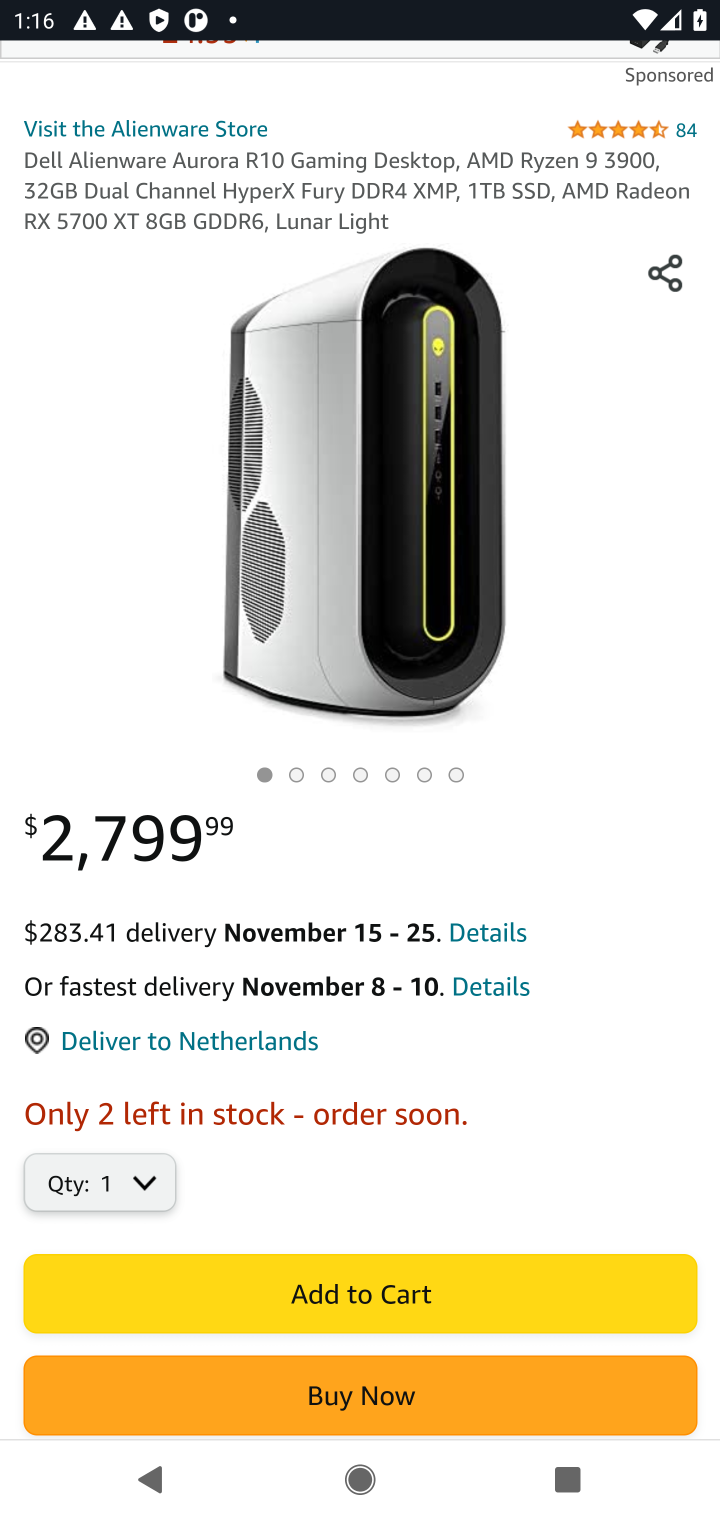
Step 27: click (497, 1278)
Your task to perform on an android device: Add dell alienware to the cart on amazon.com, then select checkout. Image 28: 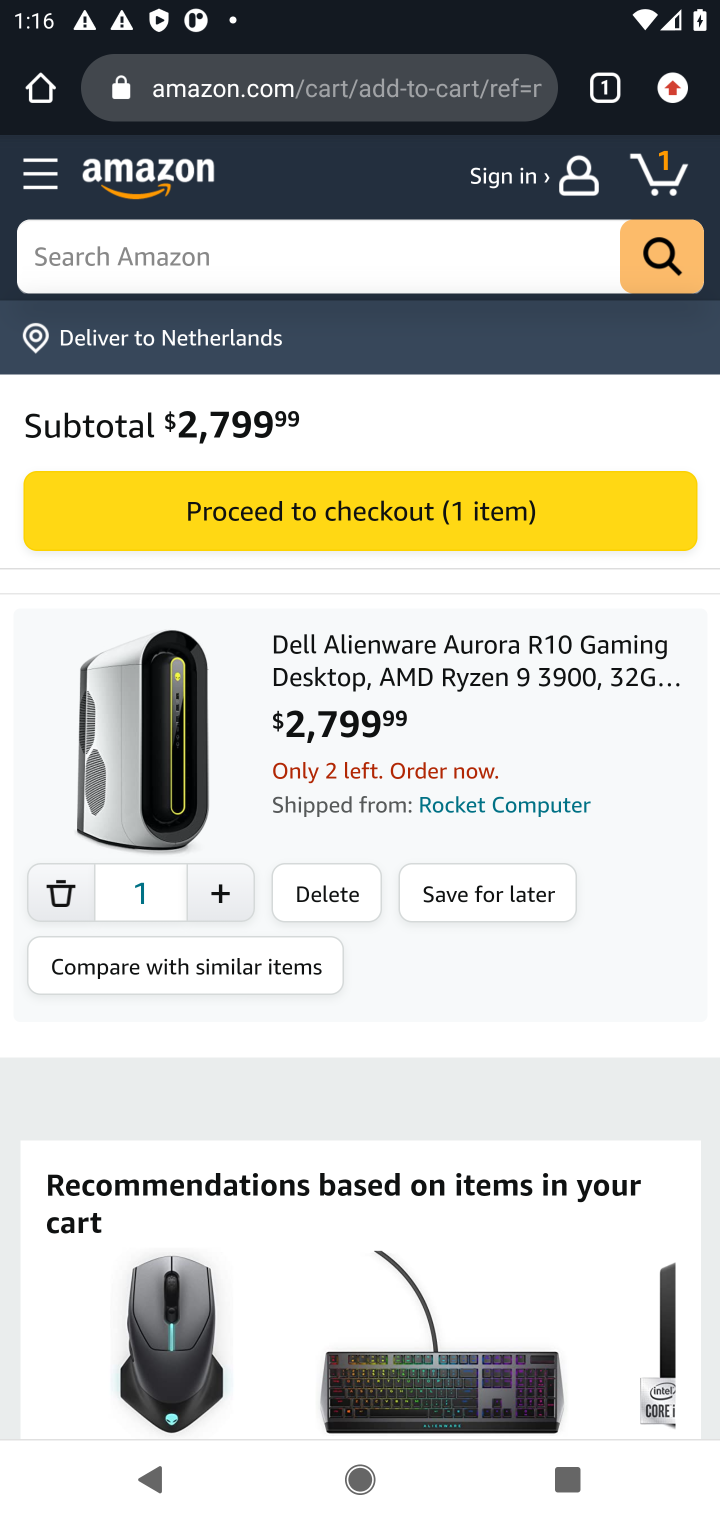
Step 28: click (395, 518)
Your task to perform on an android device: Add dell alienware to the cart on amazon.com, then select checkout. Image 29: 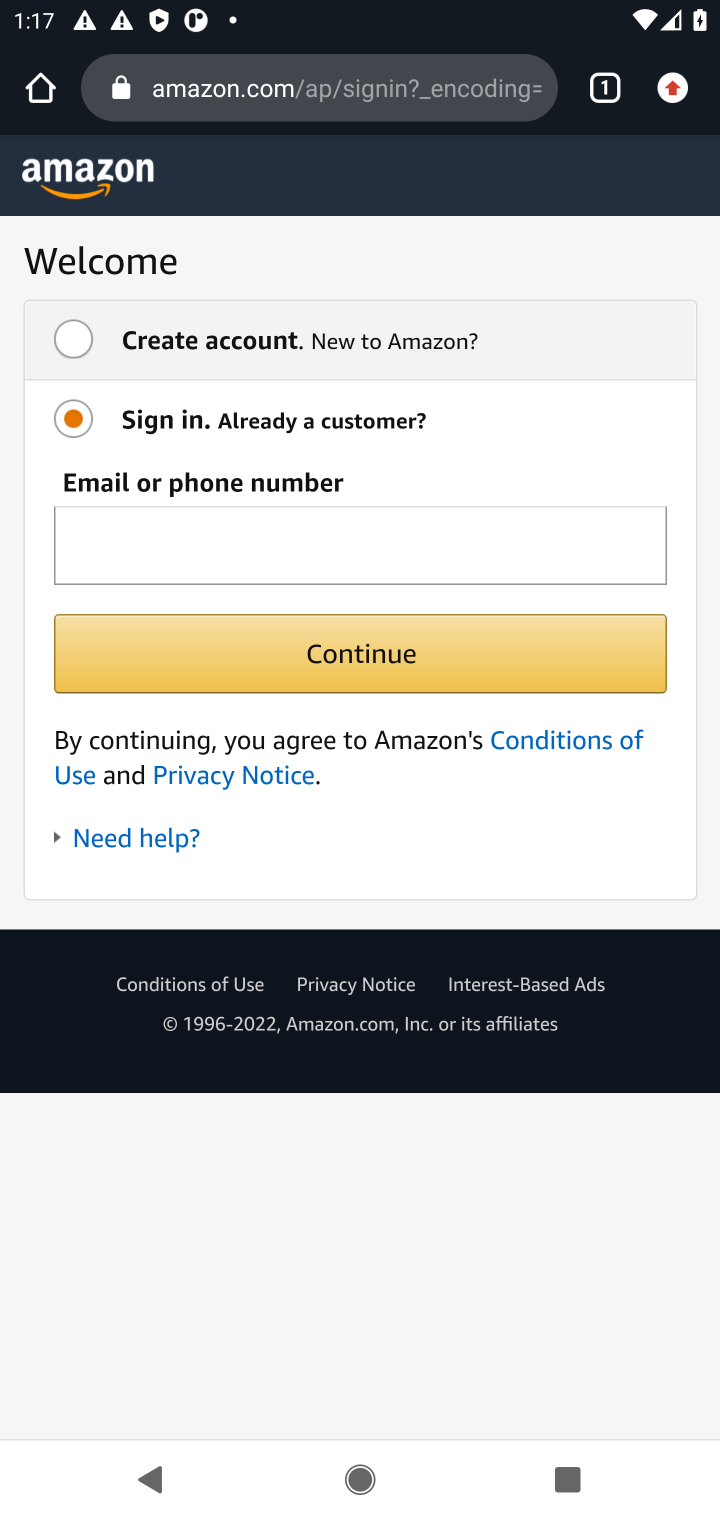
Step 29: task complete